Your task to perform on an android device: turn off improve location accuracy Image 0: 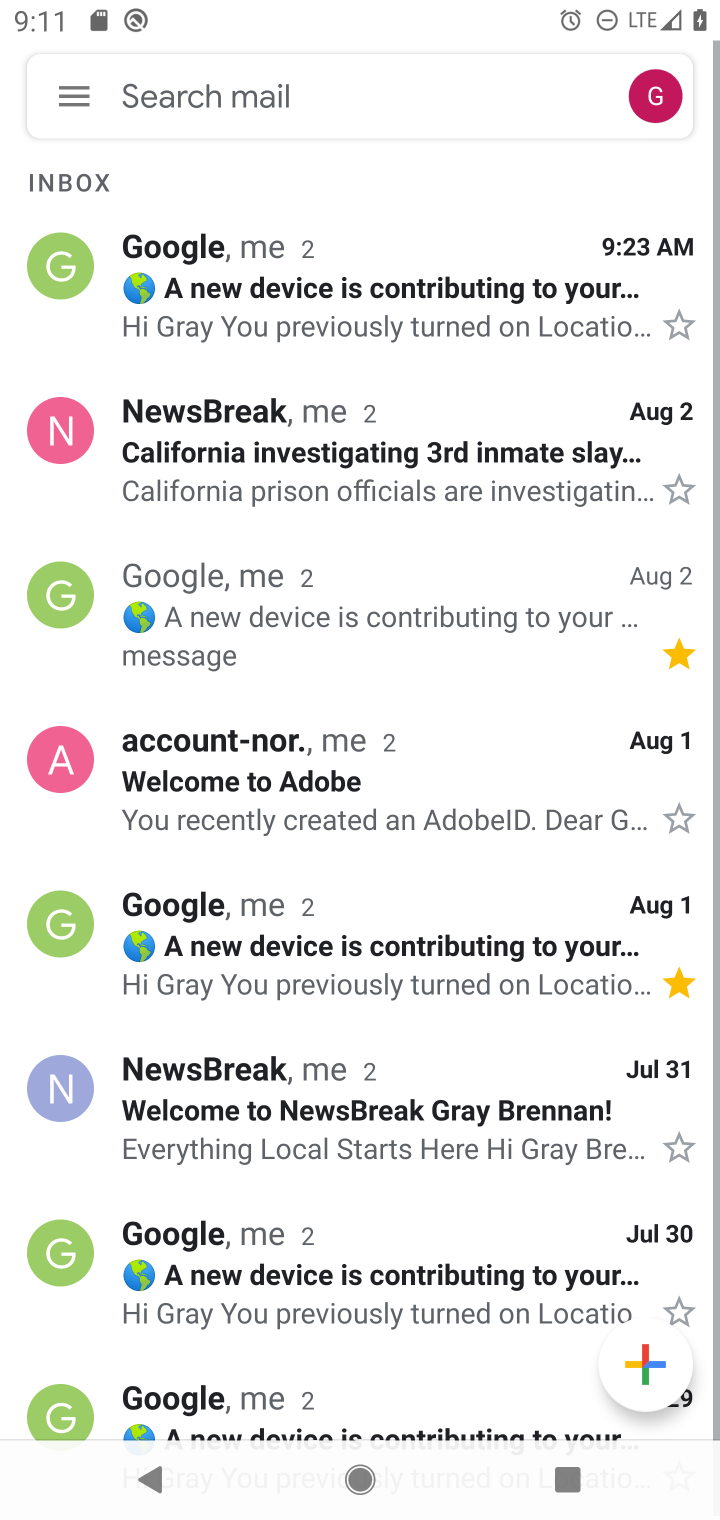
Step 0: press home button
Your task to perform on an android device: turn off improve location accuracy Image 1: 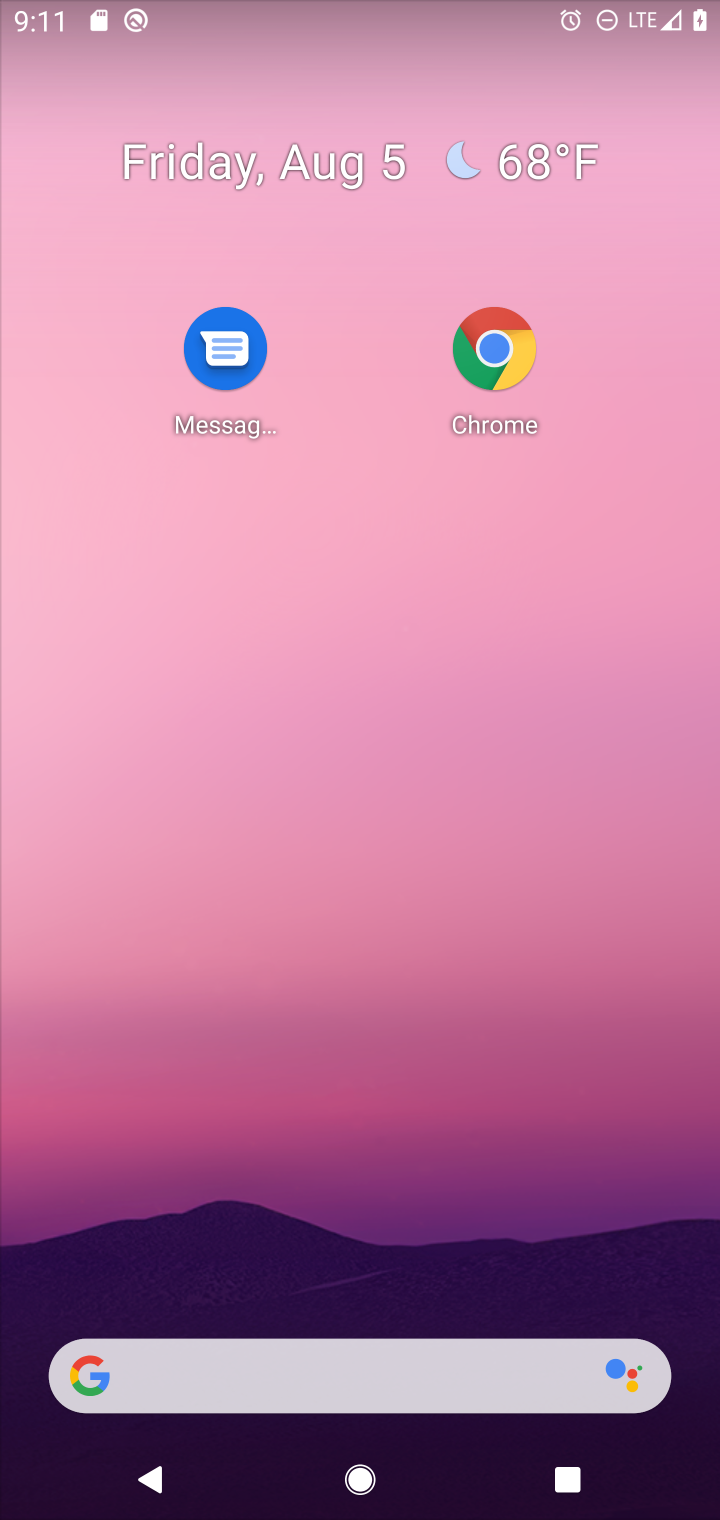
Step 1: drag from (469, 1423) to (466, 913)
Your task to perform on an android device: turn off improve location accuracy Image 2: 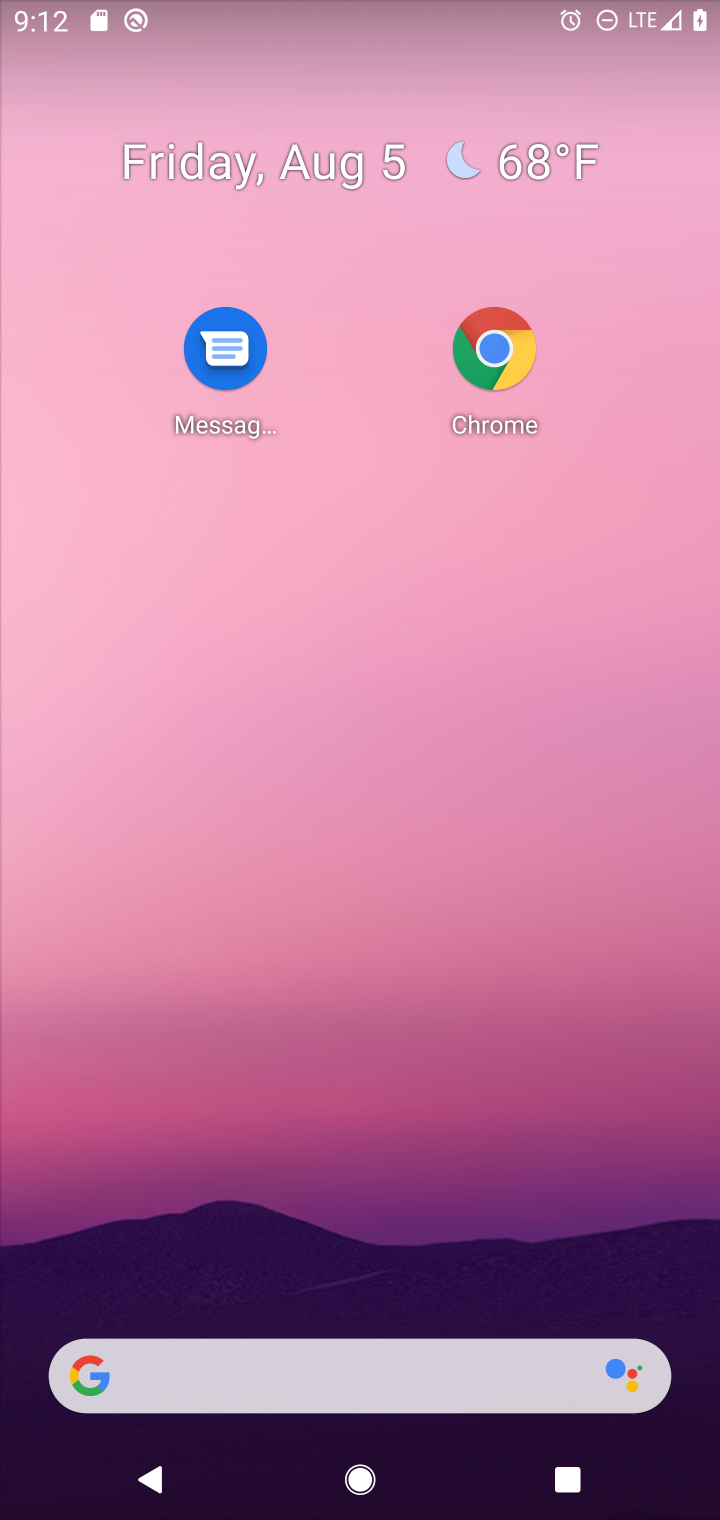
Step 2: drag from (459, 1261) to (488, 864)
Your task to perform on an android device: turn off improve location accuracy Image 3: 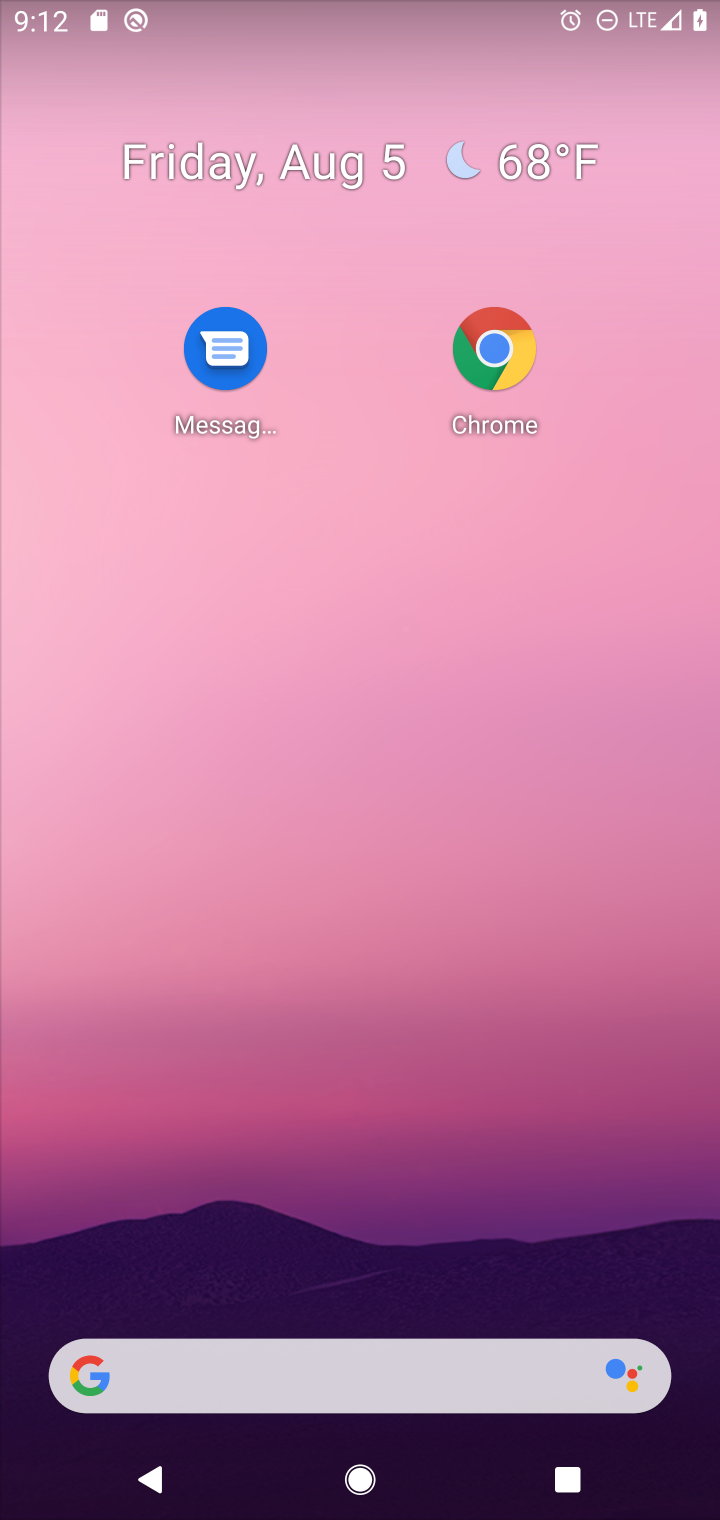
Step 3: drag from (418, 1411) to (255, 864)
Your task to perform on an android device: turn off improve location accuracy Image 4: 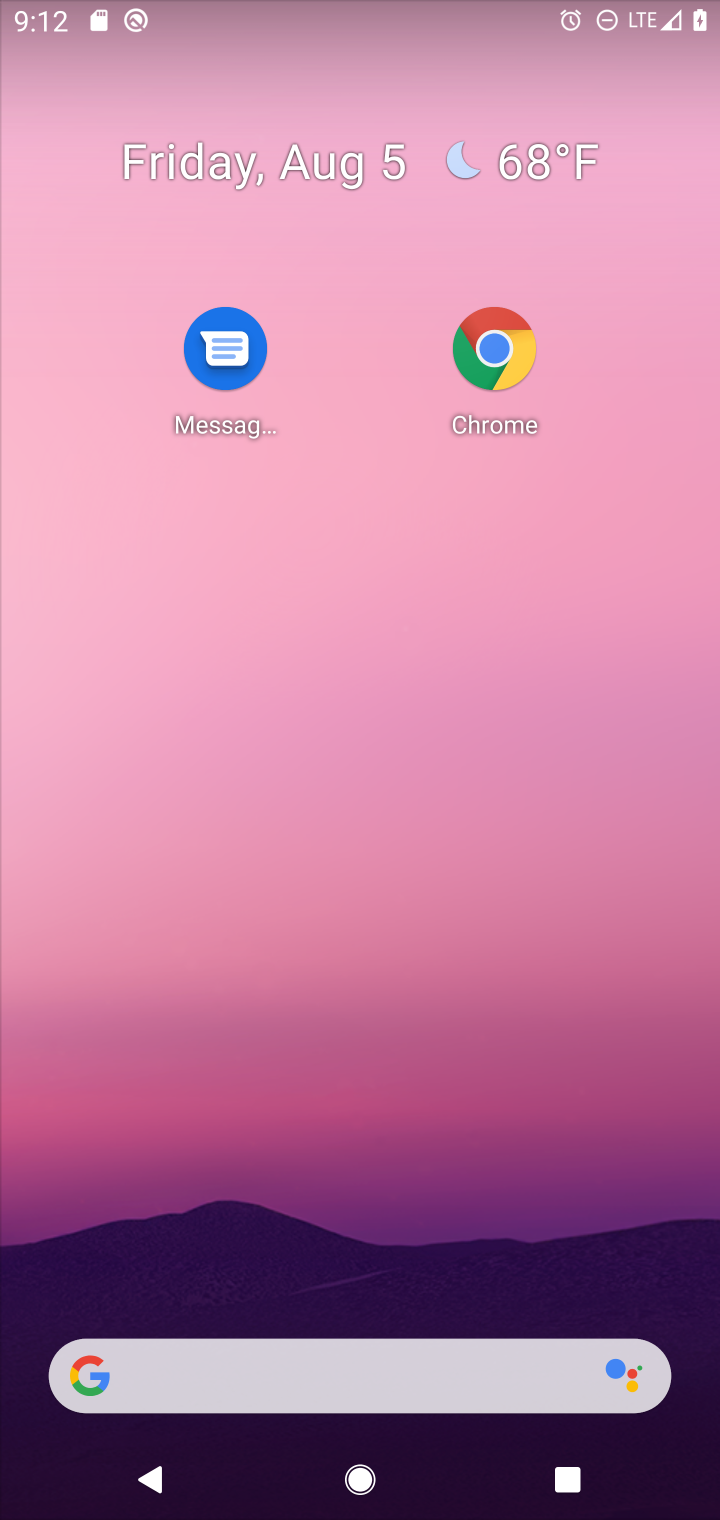
Step 4: drag from (351, 1398) to (222, 513)
Your task to perform on an android device: turn off improve location accuracy Image 5: 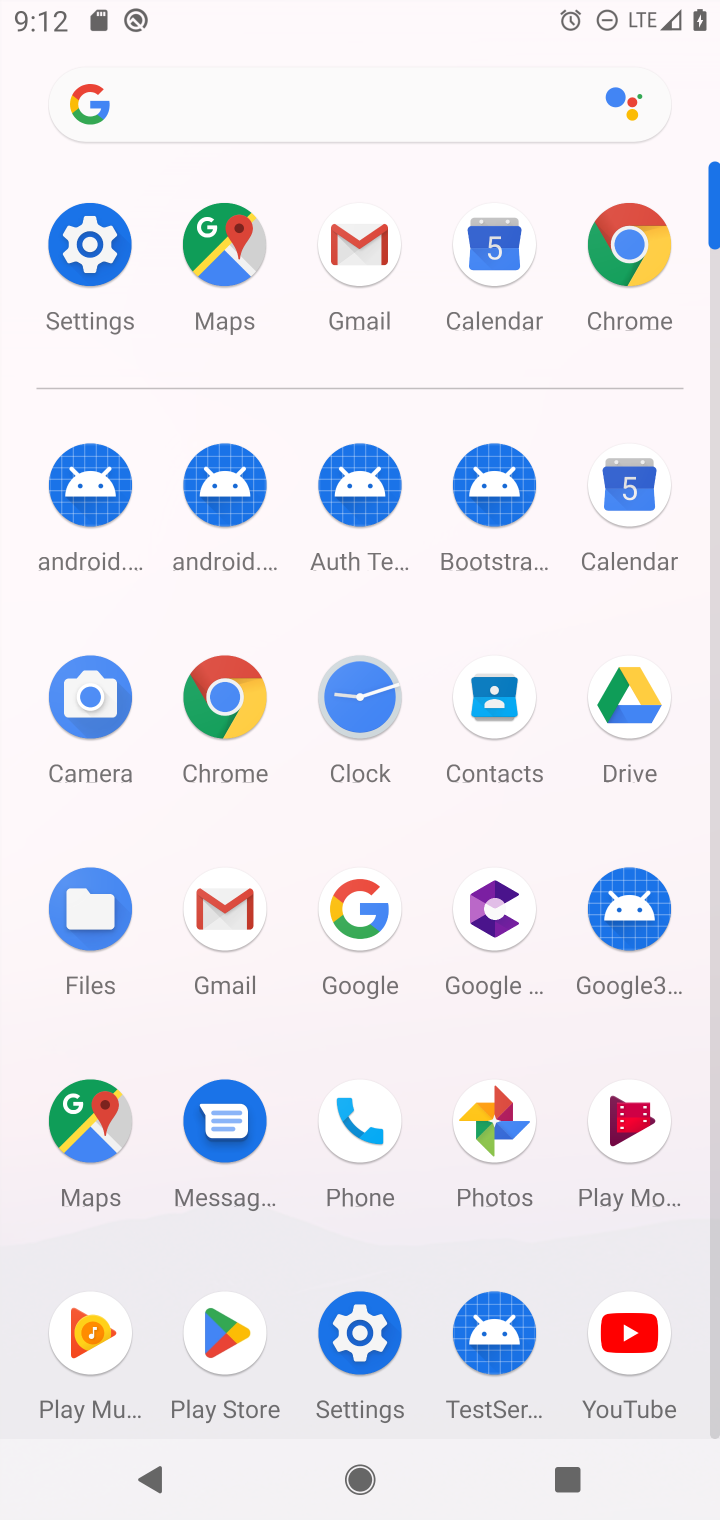
Step 5: click (88, 271)
Your task to perform on an android device: turn off improve location accuracy Image 6: 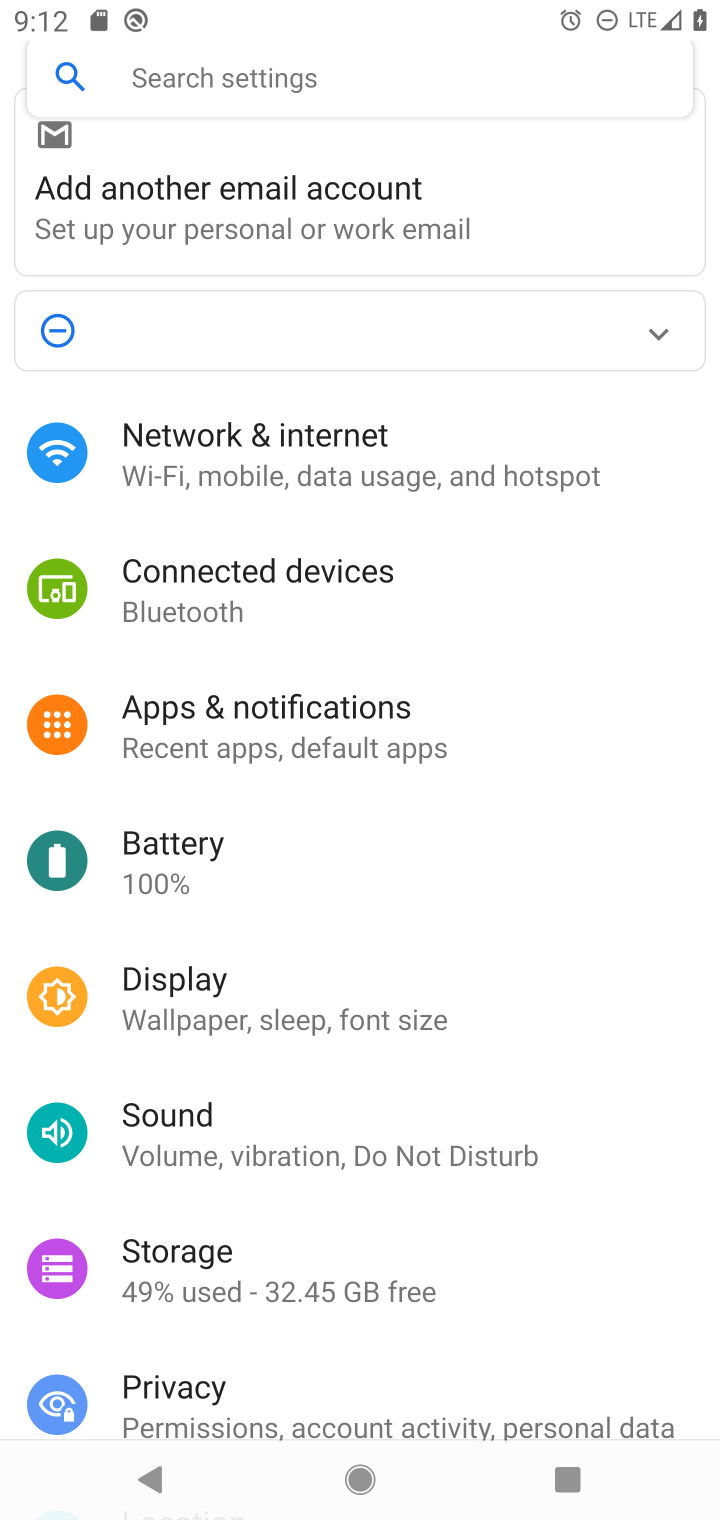
Step 6: click (259, 83)
Your task to perform on an android device: turn off improve location accuracy Image 7: 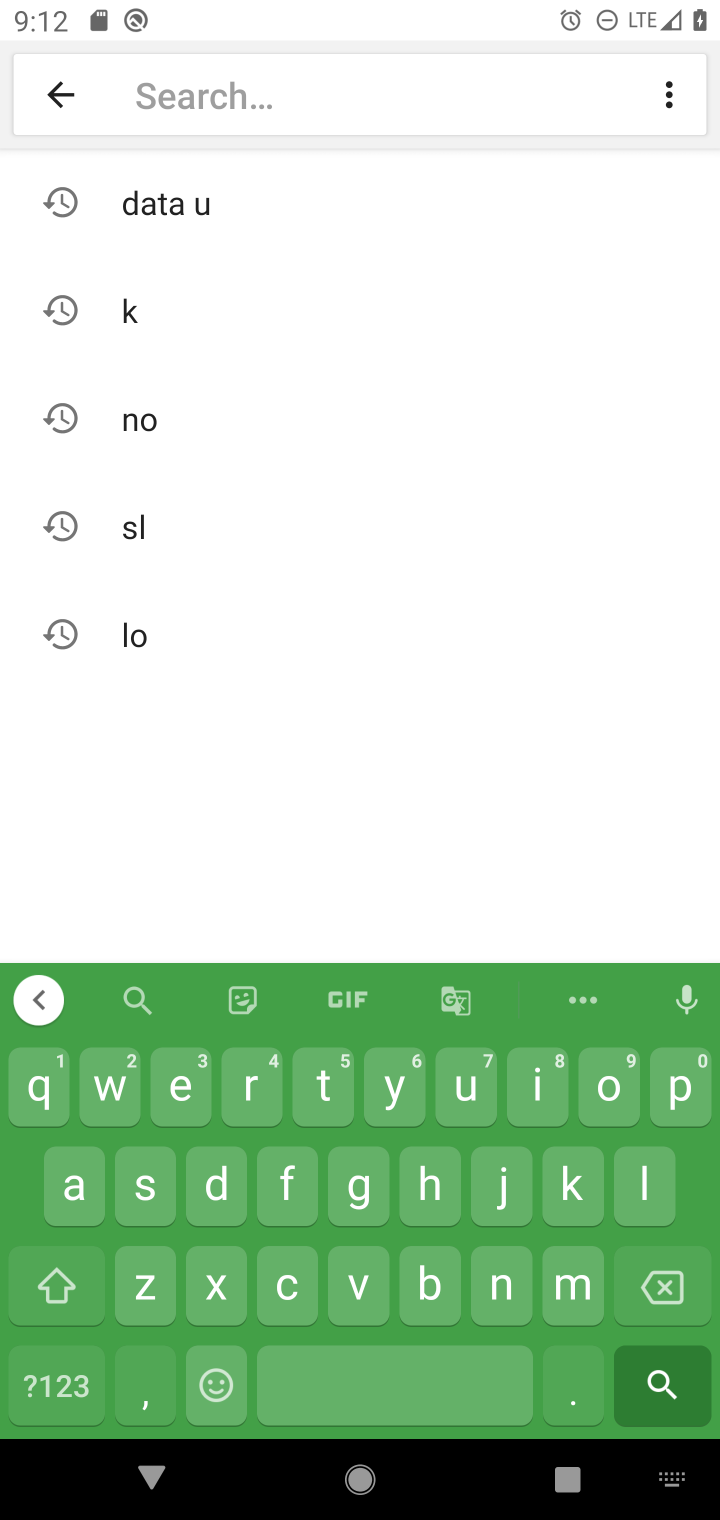
Step 7: click (150, 624)
Your task to perform on an android device: turn off improve location accuracy Image 8: 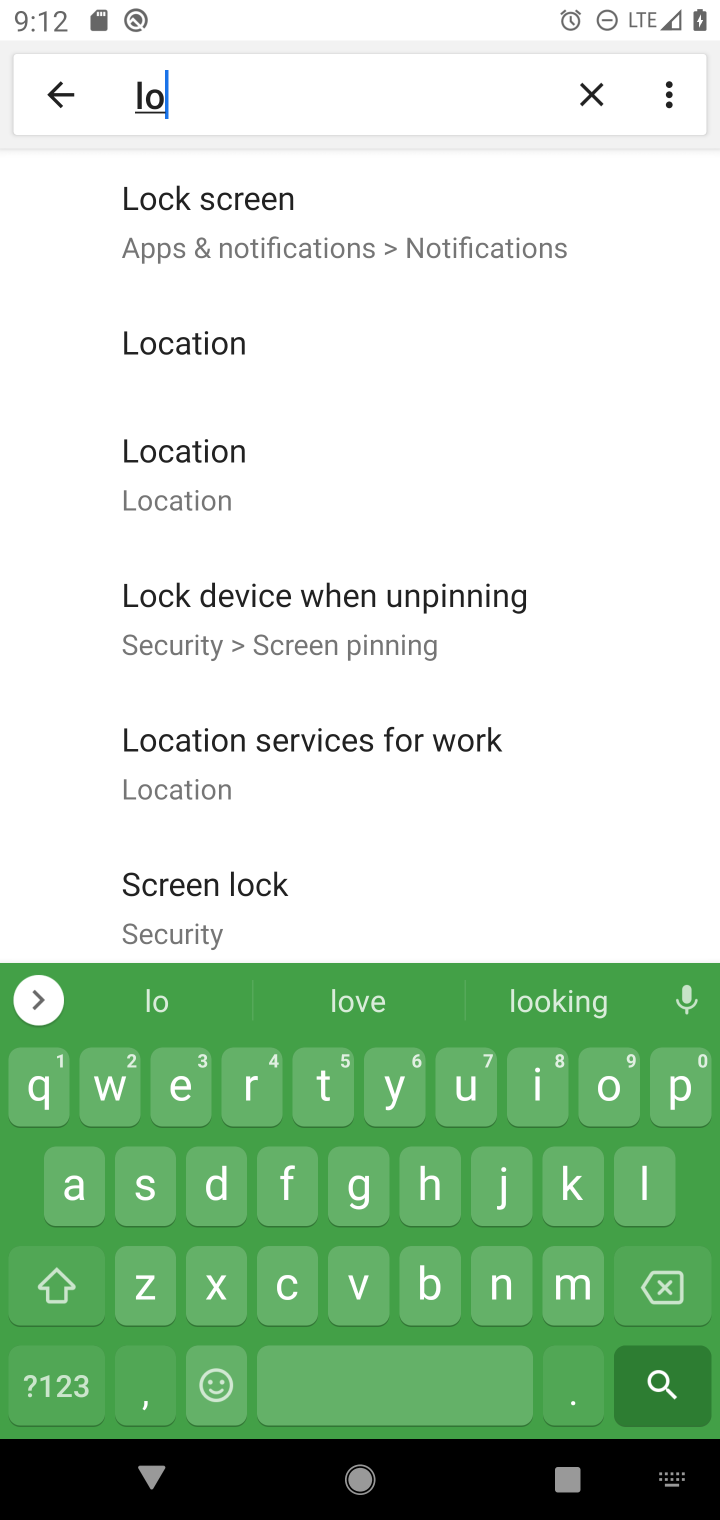
Step 8: click (189, 461)
Your task to perform on an android device: turn off improve location accuracy Image 9: 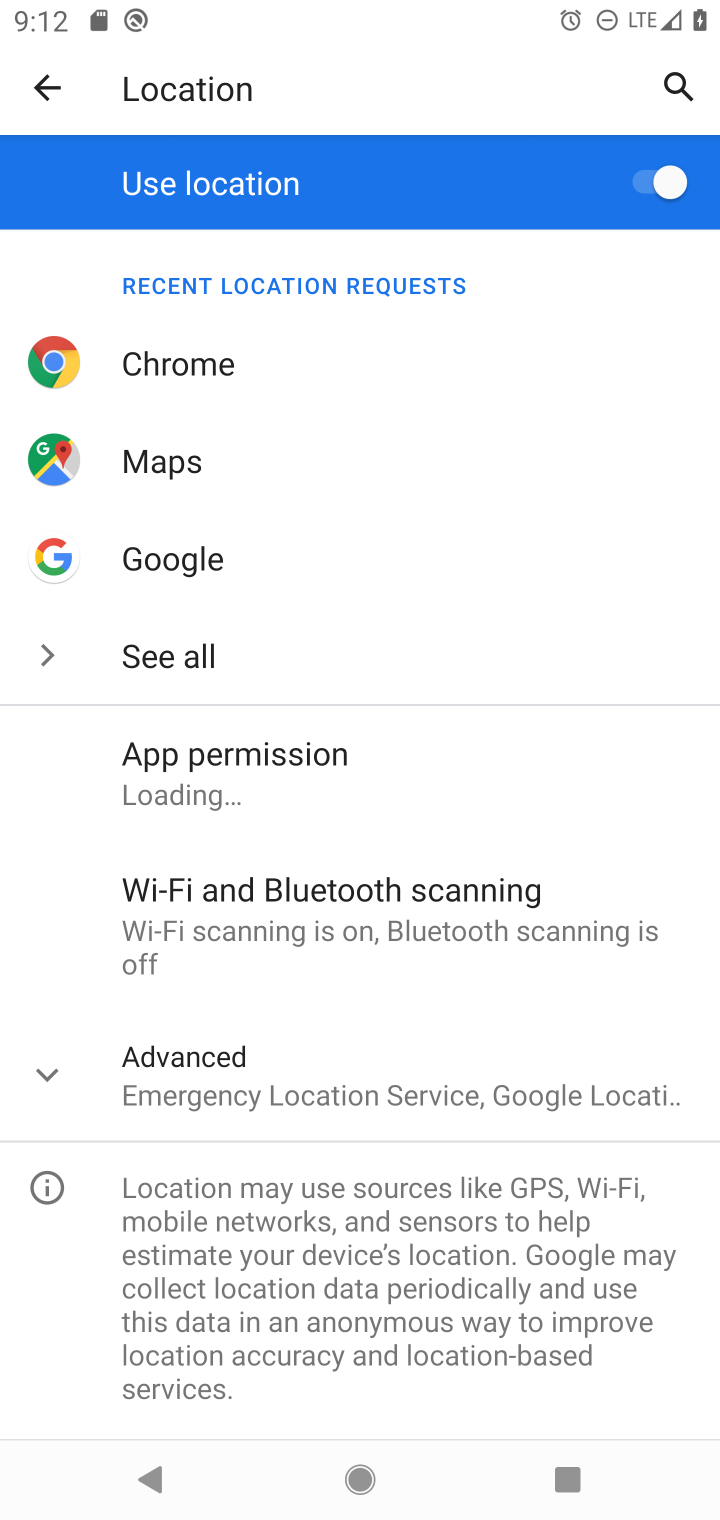
Step 9: click (41, 1071)
Your task to perform on an android device: turn off improve location accuracy Image 10: 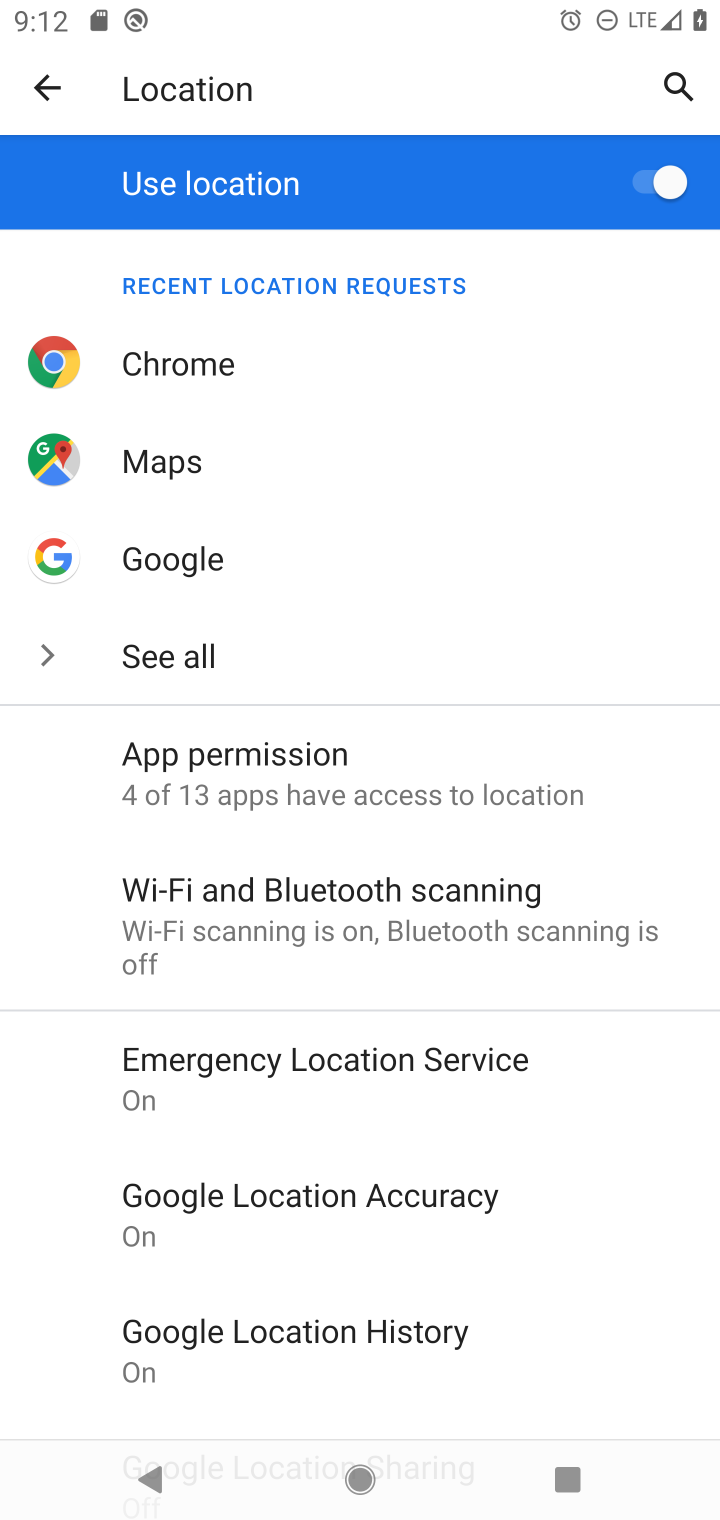
Step 10: click (348, 1188)
Your task to perform on an android device: turn off improve location accuracy Image 11: 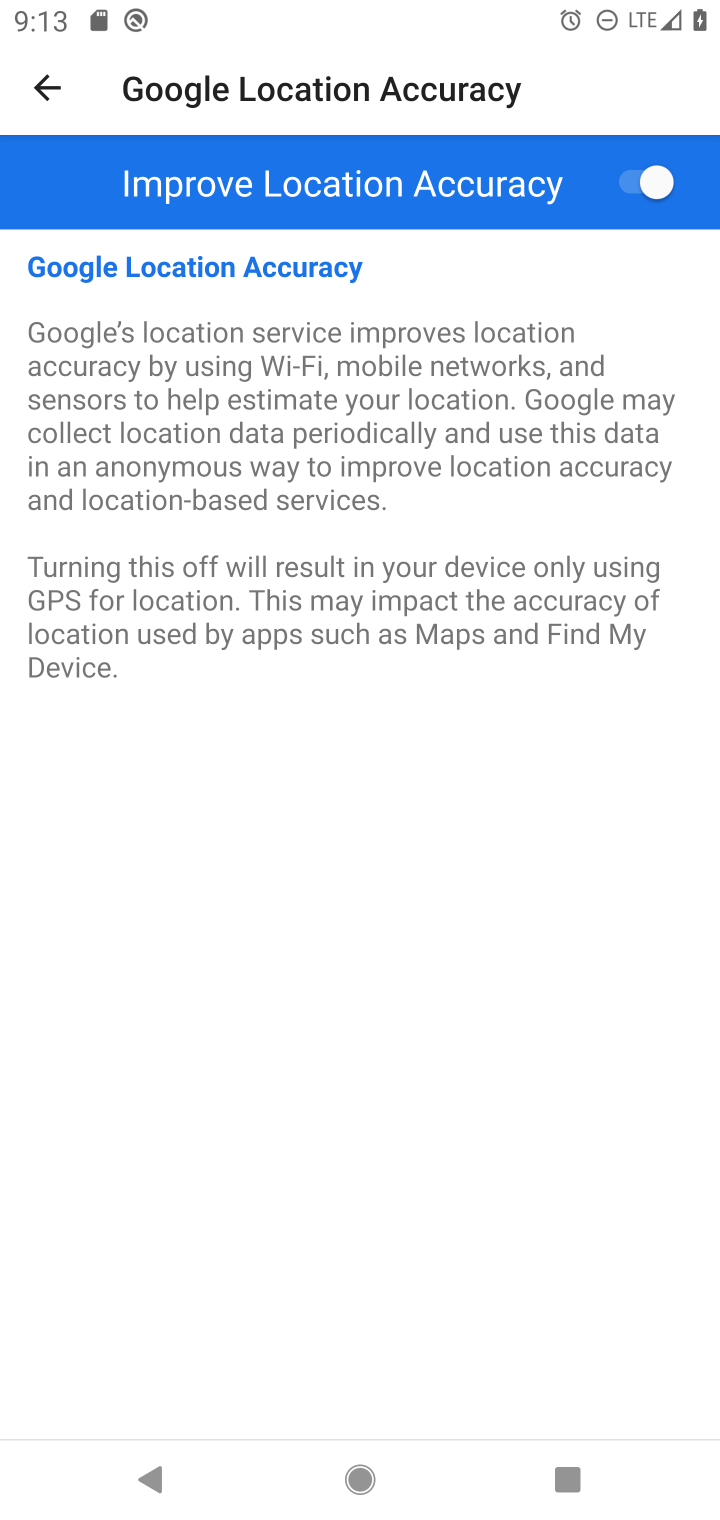
Step 11: click (638, 196)
Your task to perform on an android device: turn off improve location accuracy Image 12: 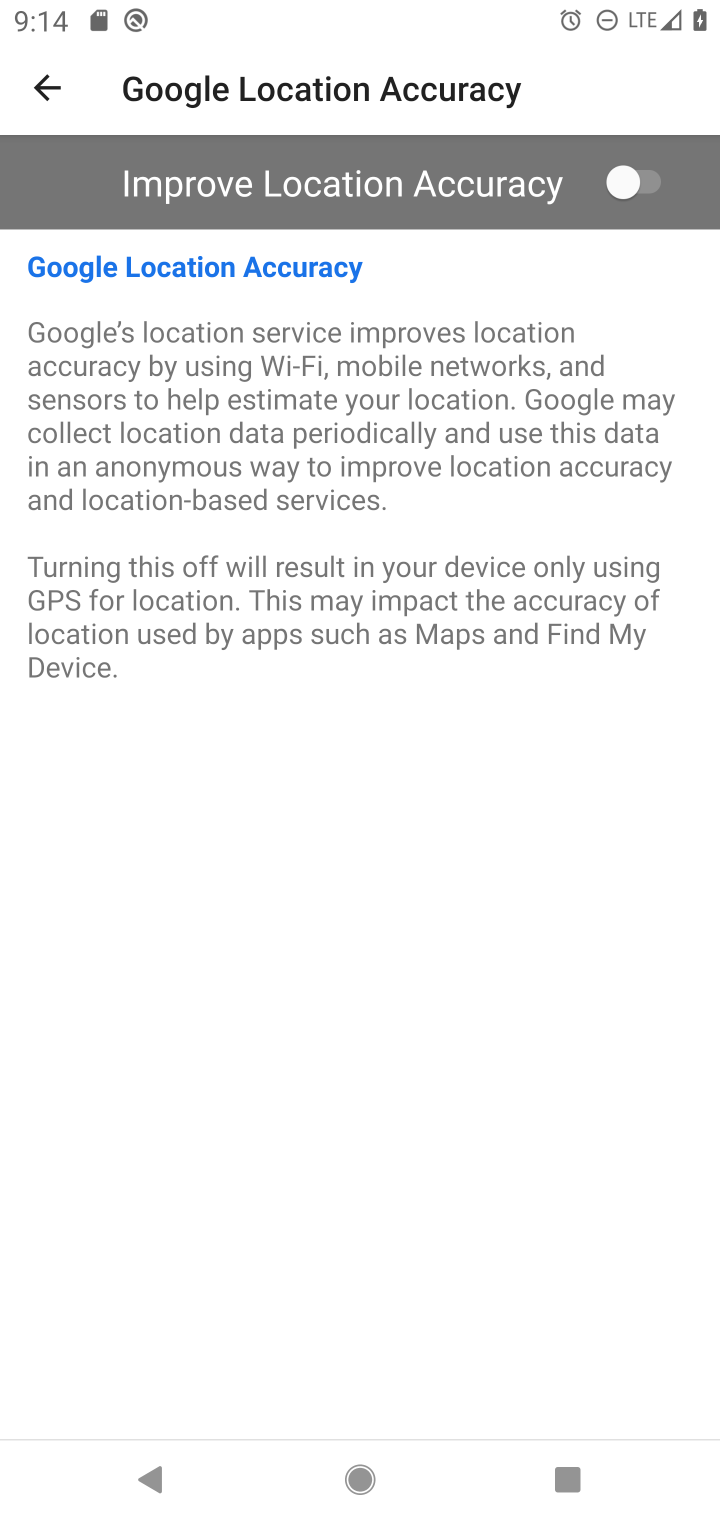
Step 12: task complete